Your task to perform on an android device: Go to display settings Image 0: 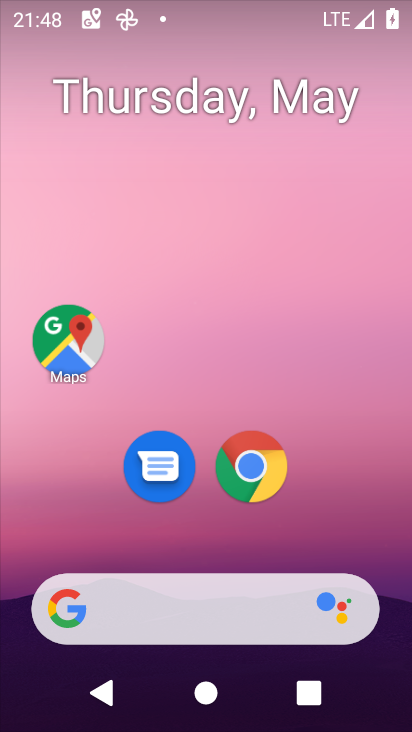
Step 0: drag from (336, 510) to (306, 30)
Your task to perform on an android device: Go to display settings Image 1: 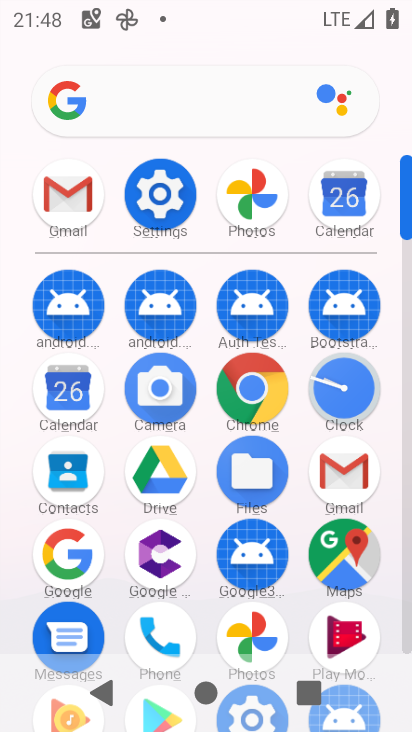
Step 1: click (172, 201)
Your task to perform on an android device: Go to display settings Image 2: 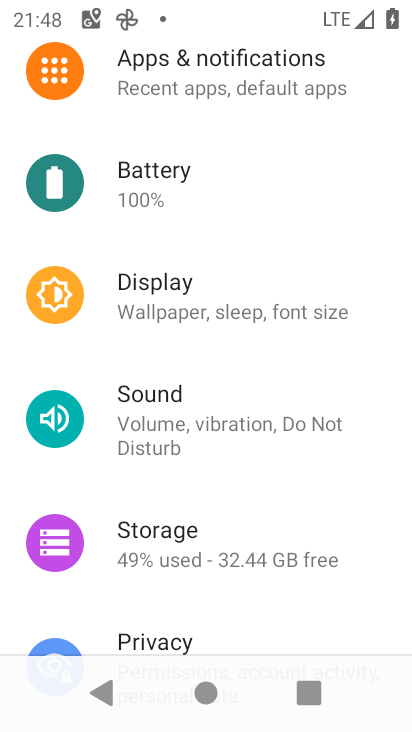
Step 2: click (194, 292)
Your task to perform on an android device: Go to display settings Image 3: 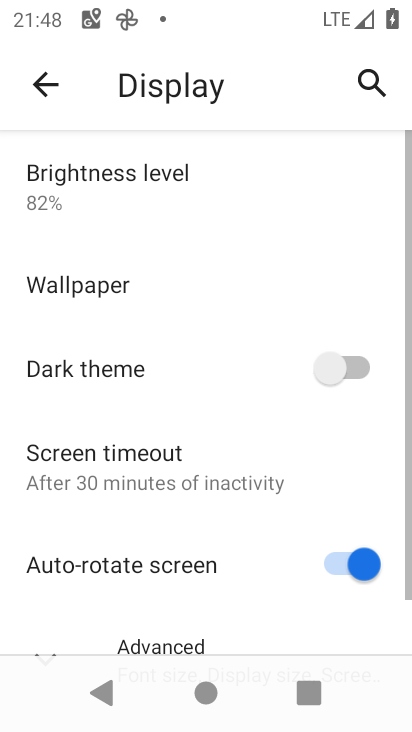
Step 3: task complete